Your task to perform on an android device: Open Google Maps Image 0: 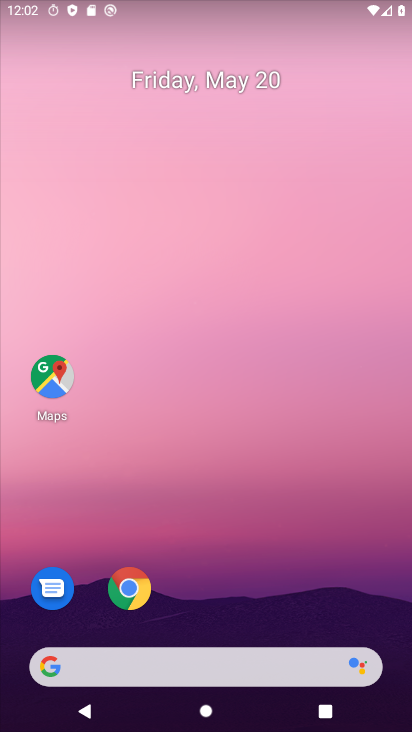
Step 0: click (63, 372)
Your task to perform on an android device: Open Google Maps Image 1: 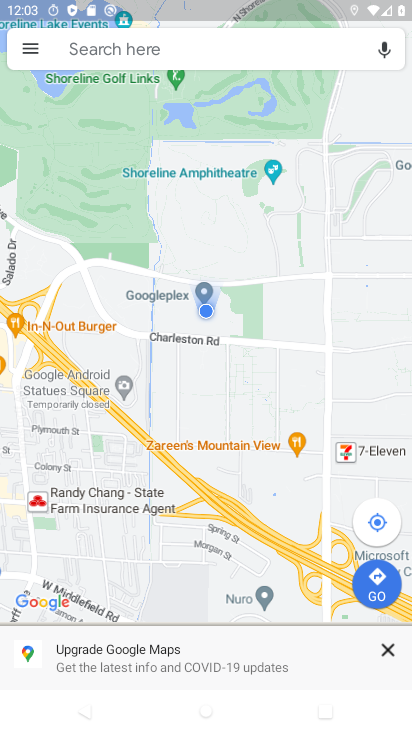
Step 1: task complete